Your task to perform on an android device: turn pop-ups off in chrome Image 0: 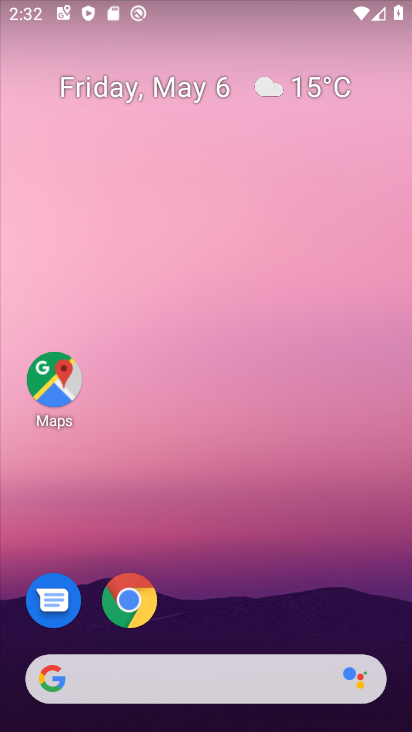
Step 0: drag from (259, 520) to (240, 11)
Your task to perform on an android device: turn pop-ups off in chrome Image 1: 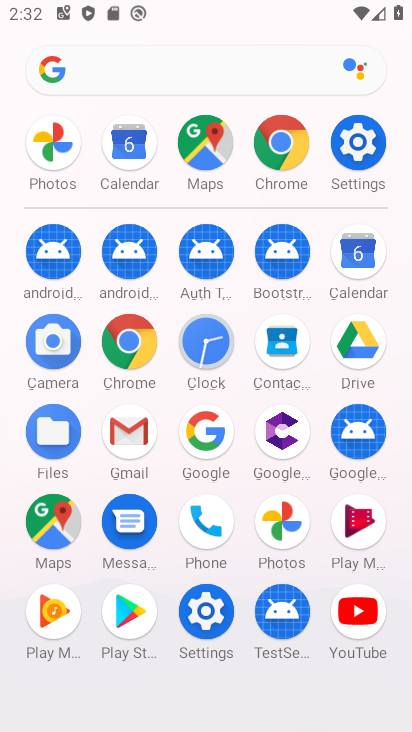
Step 1: drag from (15, 549) to (12, 291)
Your task to perform on an android device: turn pop-ups off in chrome Image 2: 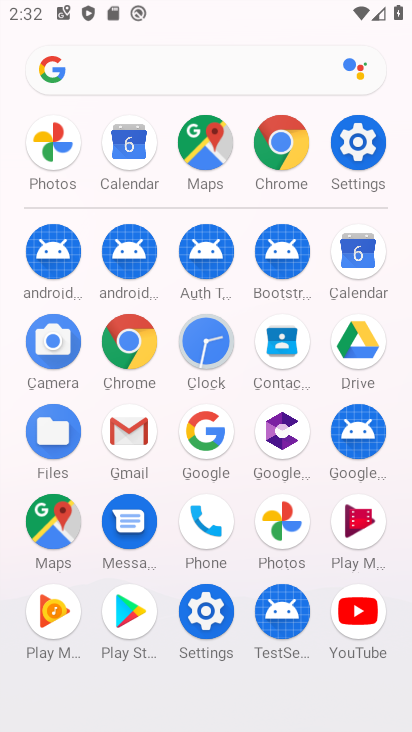
Step 2: click (127, 338)
Your task to perform on an android device: turn pop-ups off in chrome Image 3: 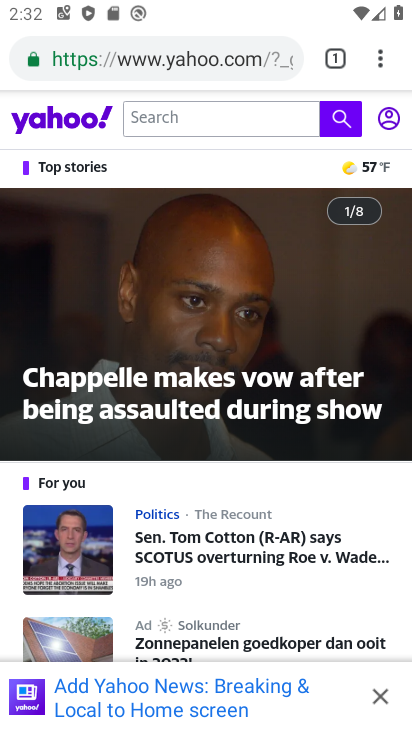
Step 3: drag from (379, 64) to (193, 628)
Your task to perform on an android device: turn pop-ups off in chrome Image 4: 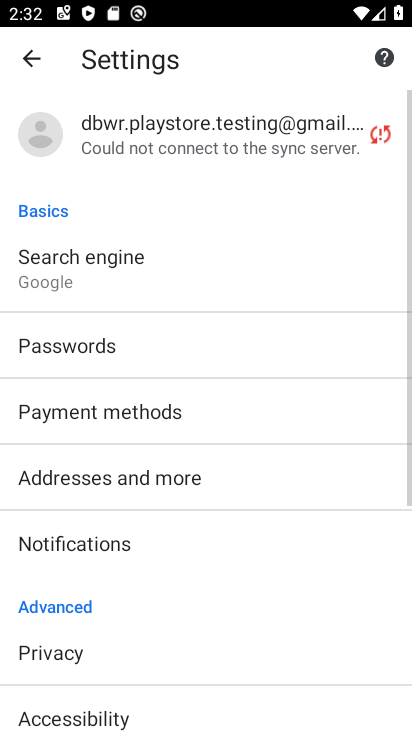
Step 4: drag from (226, 575) to (236, 202)
Your task to perform on an android device: turn pop-ups off in chrome Image 5: 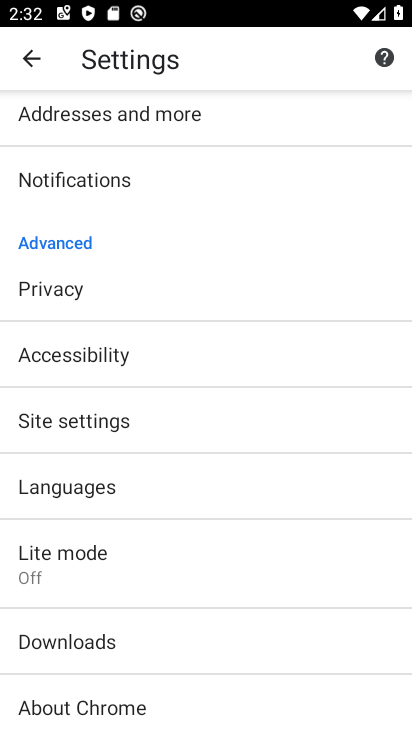
Step 5: drag from (227, 574) to (225, 188)
Your task to perform on an android device: turn pop-ups off in chrome Image 6: 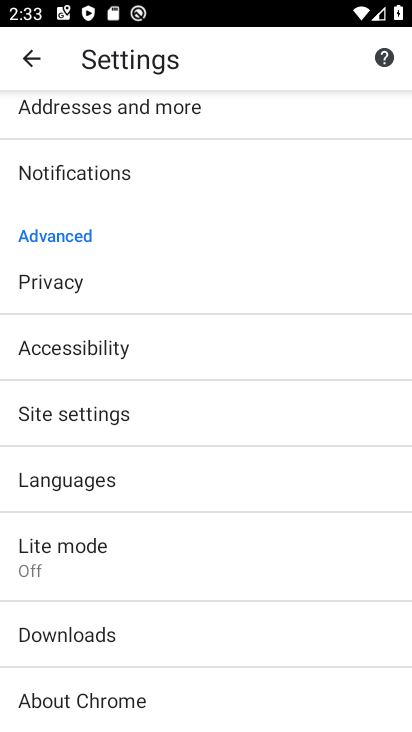
Step 6: click (139, 413)
Your task to perform on an android device: turn pop-ups off in chrome Image 7: 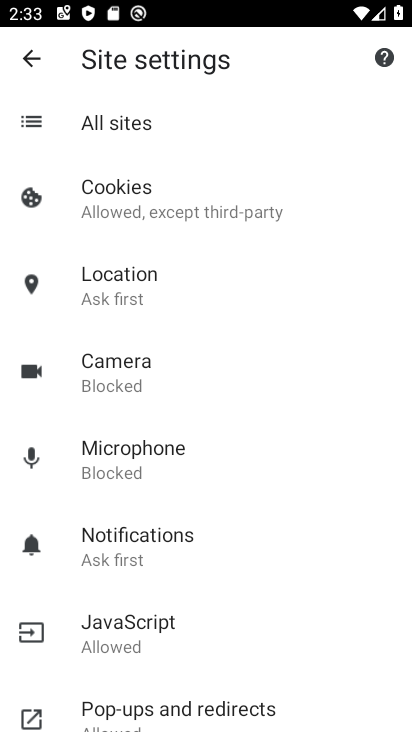
Step 7: drag from (252, 627) to (262, 196)
Your task to perform on an android device: turn pop-ups off in chrome Image 8: 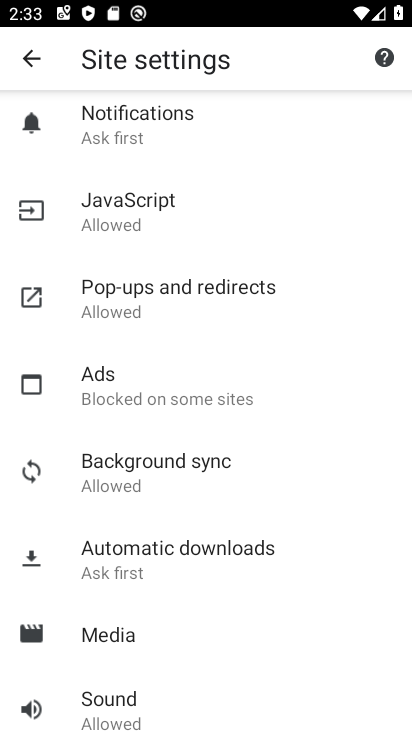
Step 8: click (173, 295)
Your task to perform on an android device: turn pop-ups off in chrome Image 9: 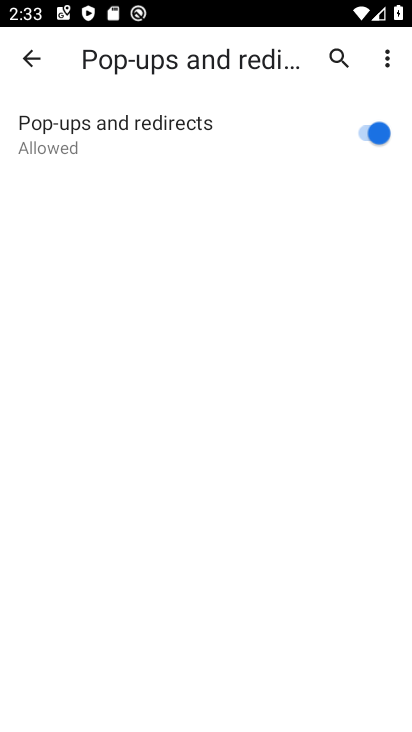
Step 9: click (373, 125)
Your task to perform on an android device: turn pop-ups off in chrome Image 10: 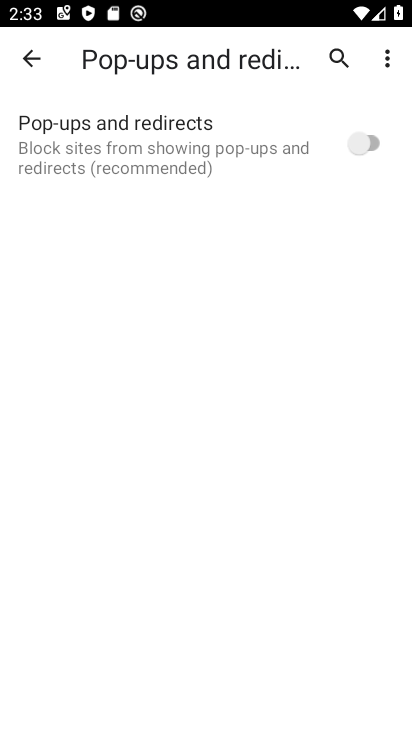
Step 10: task complete